Your task to perform on an android device: Open eBay Image 0: 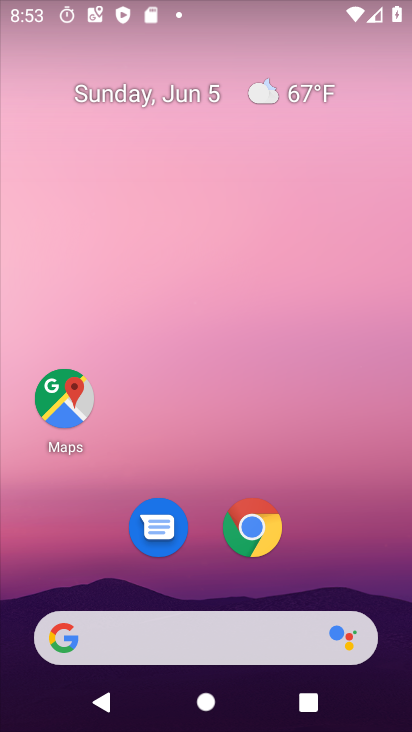
Step 0: click (255, 523)
Your task to perform on an android device: Open eBay Image 1: 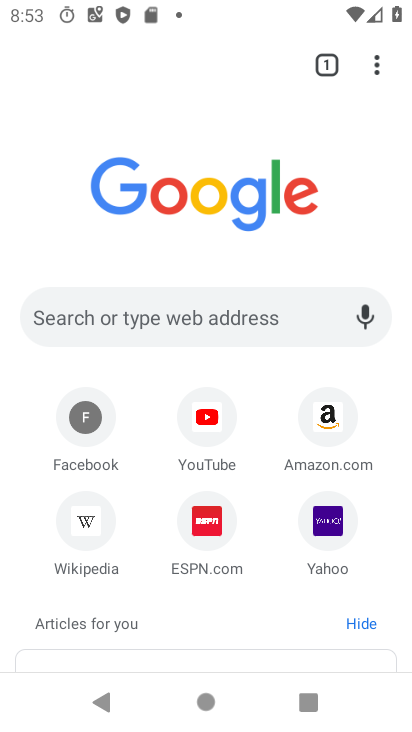
Step 1: click (204, 311)
Your task to perform on an android device: Open eBay Image 2: 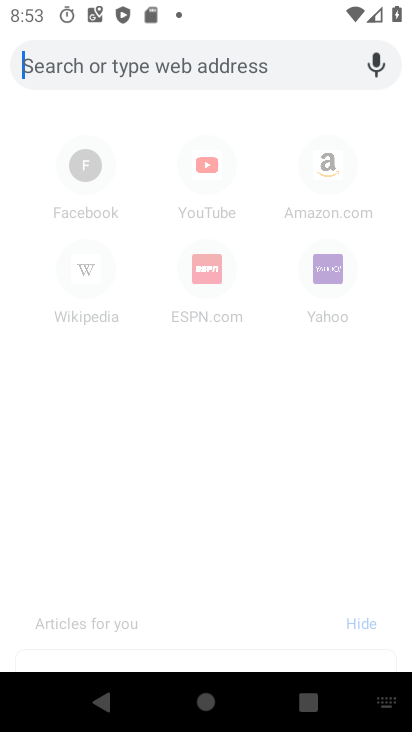
Step 2: type "eBay"
Your task to perform on an android device: Open eBay Image 3: 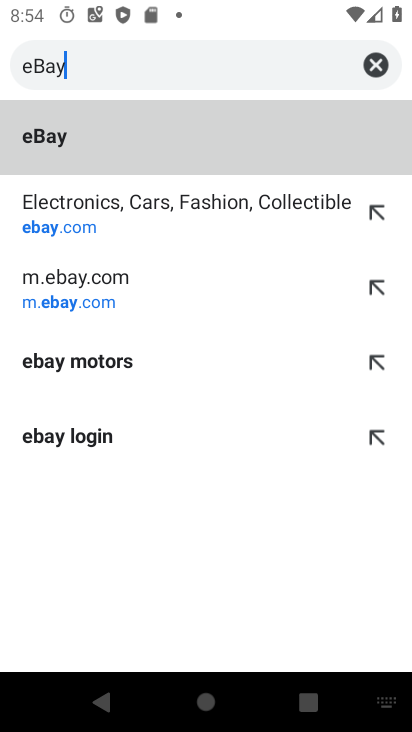
Step 3: click (56, 138)
Your task to perform on an android device: Open eBay Image 4: 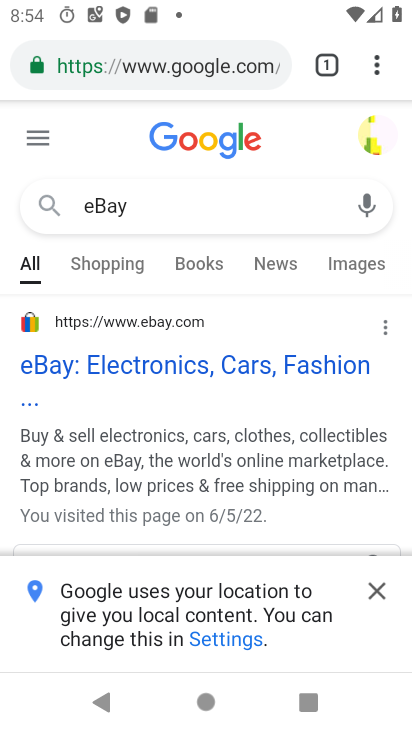
Step 4: click (261, 364)
Your task to perform on an android device: Open eBay Image 5: 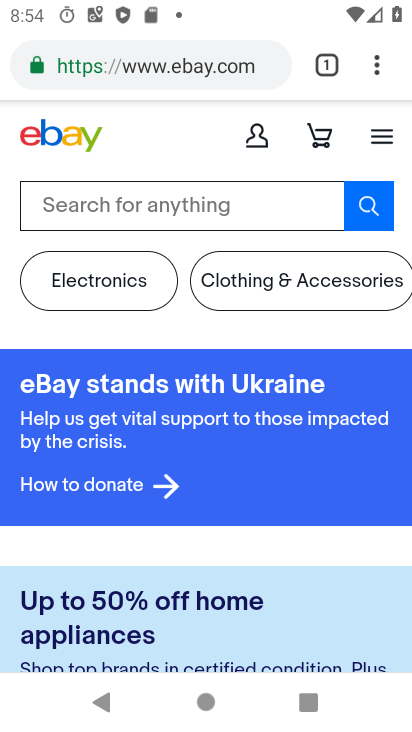
Step 5: task complete